Your task to perform on an android device: When is my next appointment? Image 0: 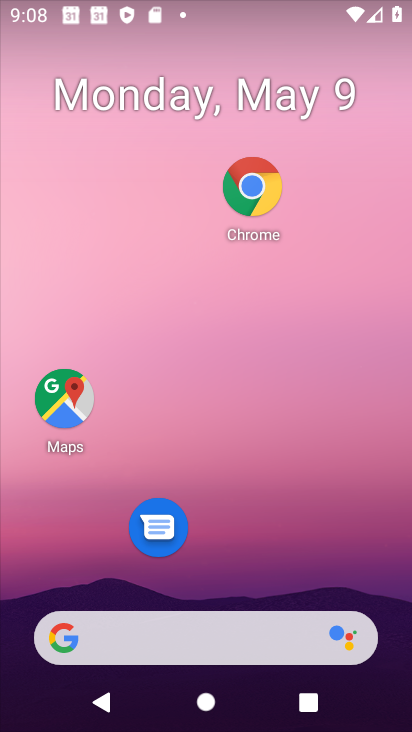
Step 0: drag from (202, 436) to (224, 21)
Your task to perform on an android device: When is my next appointment? Image 1: 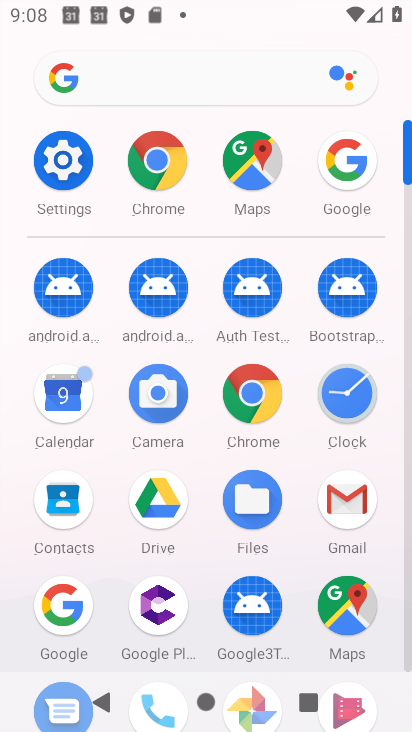
Step 1: click (61, 385)
Your task to perform on an android device: When is my next appointment? Image 2: 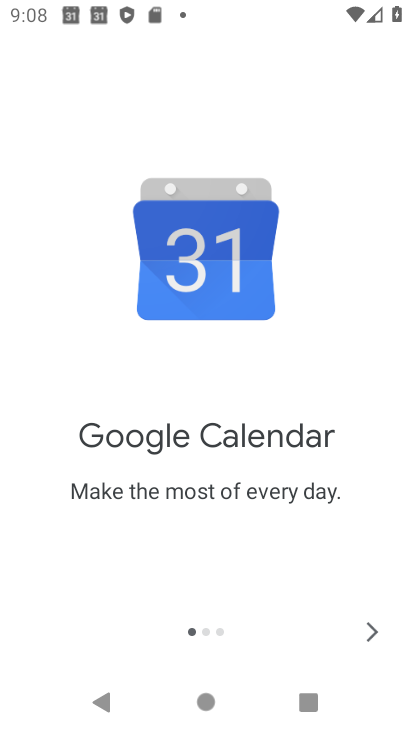
Step 2: click (362, 627)
Your task to perform on an android device: When is my next appointment? Image 3: 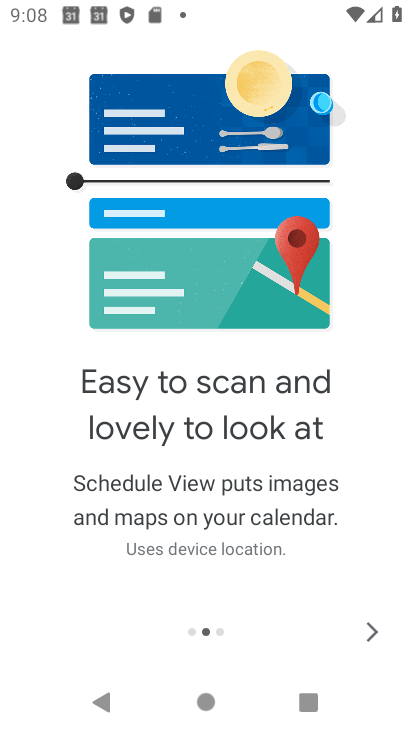
Step 3: click (362, 627)
Your task to perform on an android device: When is my next appointment? Image 4: 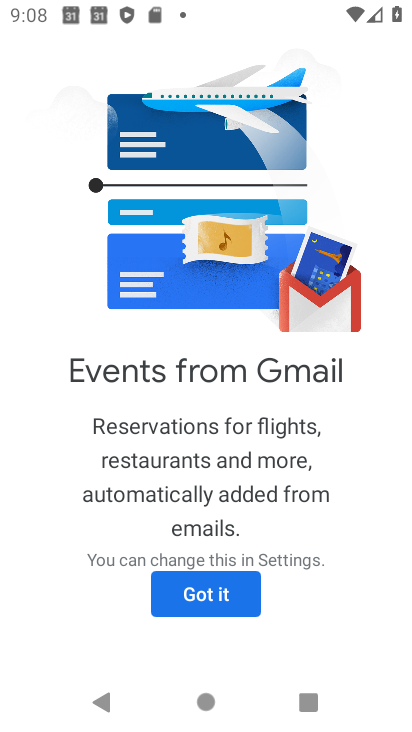
Step 4: click (217, 595)
Your task to perform on an android device: When is my next appointment? Image 5: 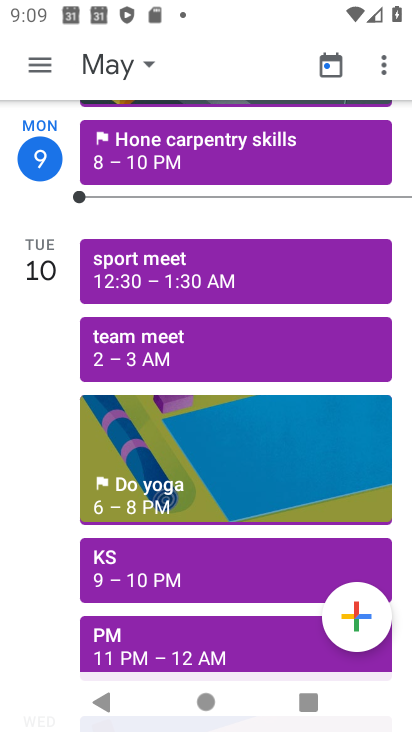
Step 5: task complete